Your task to perform on an android device: turn off notifications in google photos Image 0: 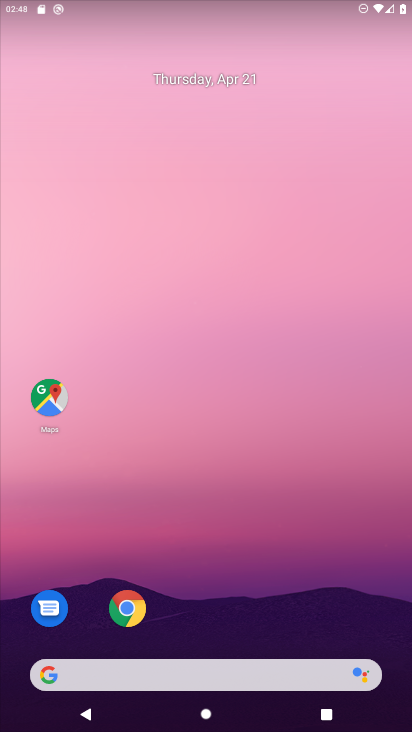
Step 0: click (210, 198)
Your task to perform on an android device: turn off notifications in google photos Image 1: 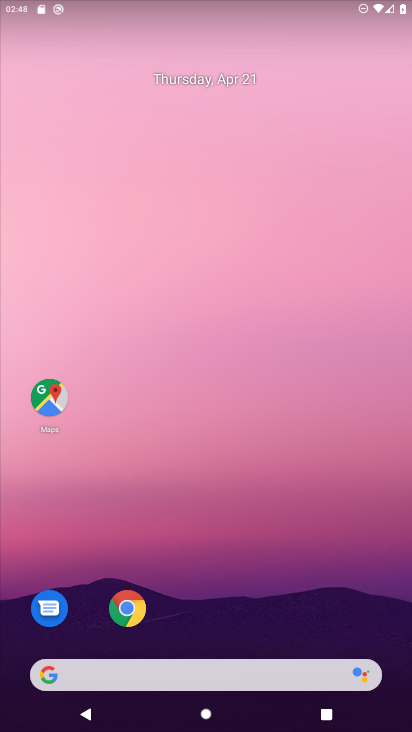
Step 1: drag from (281, 468) to (324, 137)
Your task to perform on an android device: turn off notifications in google photos Image 2: 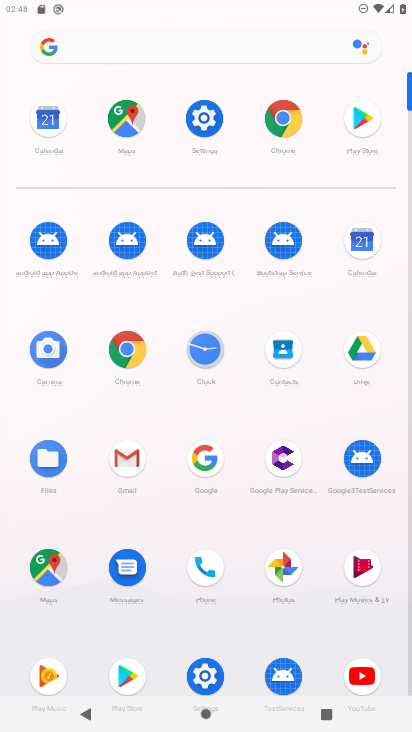
Step 2: click (283, 556)
Your task to perform on an android device: turn off notifications in google photos Image 3: 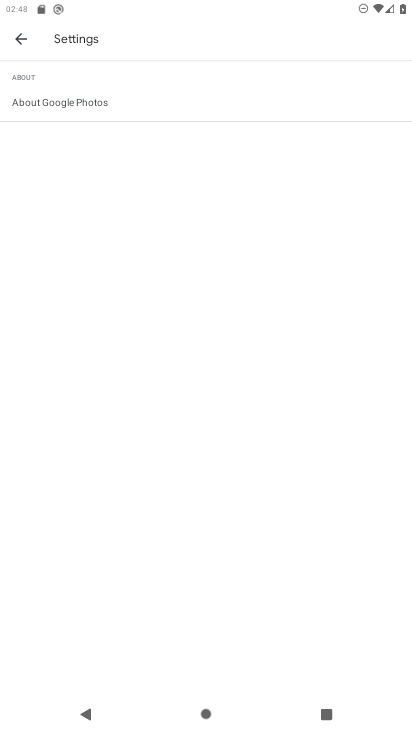
Step 3: click (23, 35)
Your task to perform on an android device: turn off notifications in google photos Image 4: 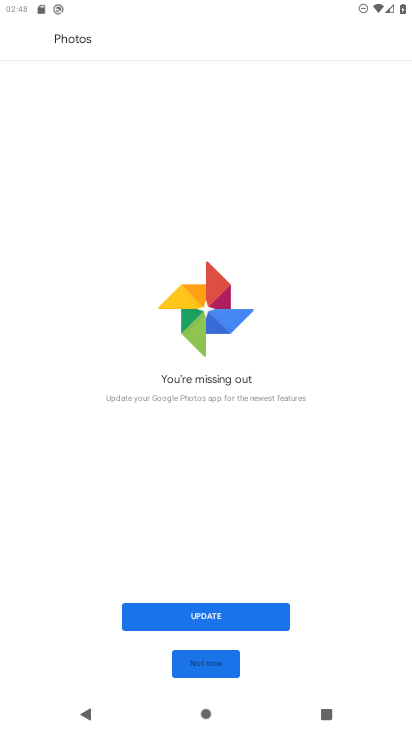
Step 4: click (194, 672)
Your task to perform on an android device: turn off notifications in google photos Image 5: 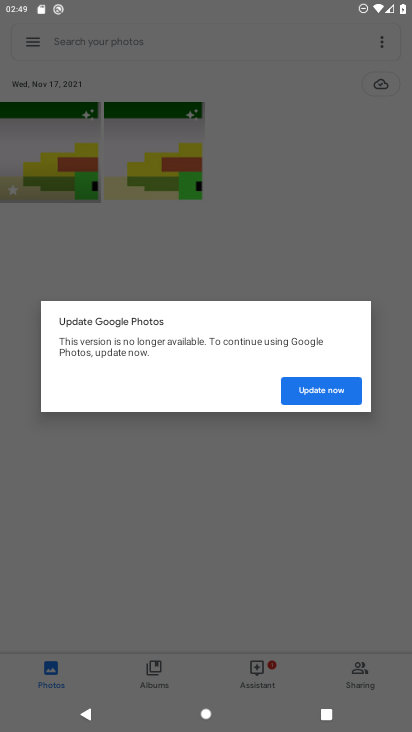
Step 5: click (303, 394)
Your task to perform on an android device: turn off notifications in google photos Image 6: 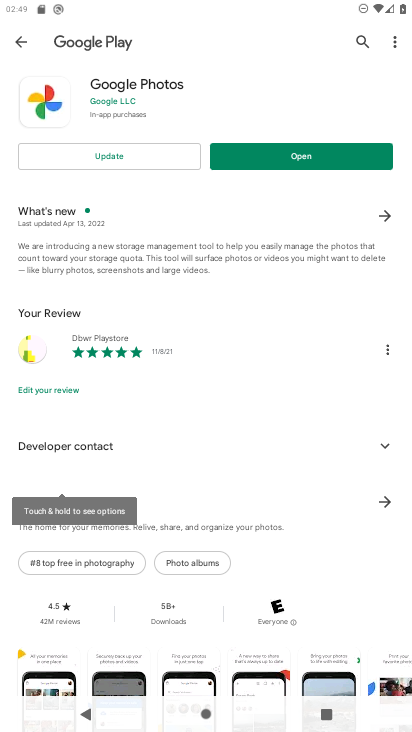
Step 6: press back button
Your task to perform on an android device: turn off notifications in google photos Image 7: 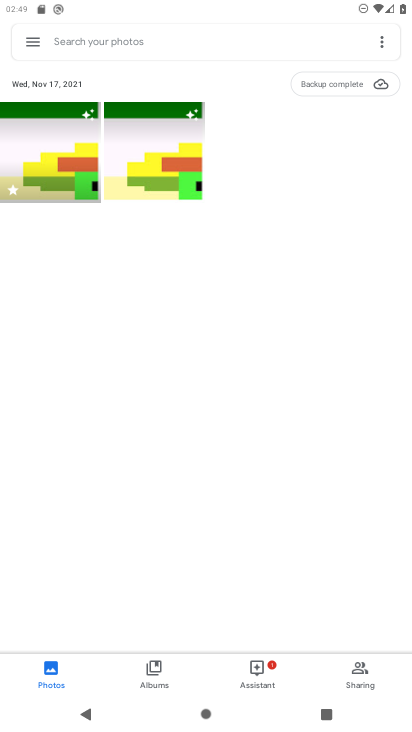
Step 7: click (23, 42)
Your task to perform on an android device: turn off notifications in google photos Image 8: 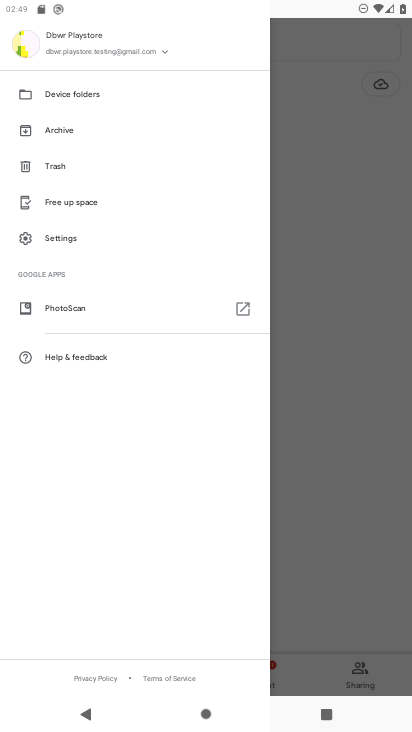
Step 8: click (72, 238)
Your task to perform on an android device: turn off notifications in google photos Image 9: 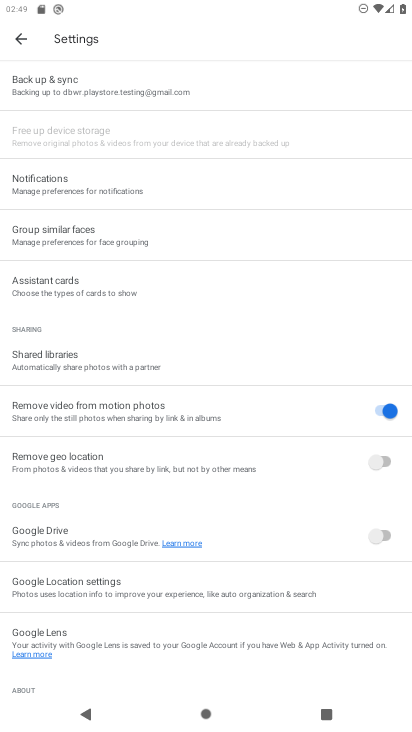
Step 9: click (97, 181)
Your task to perform on an android device: turn off notifications in google photos Image 10: 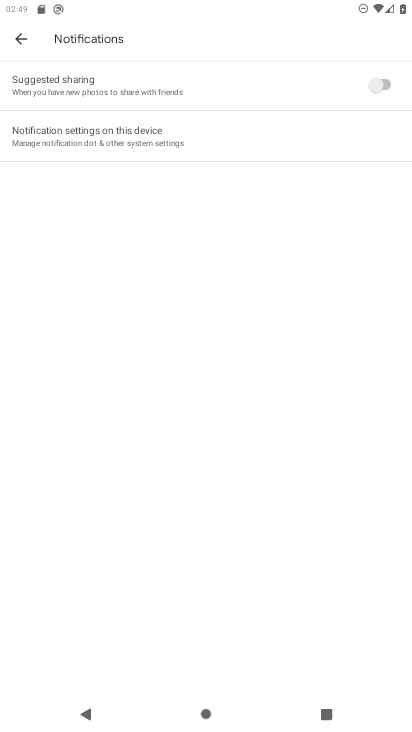
Step 10: click (212, 131)
Your task to perform on an android device: turn off notifications in google photos Image 11: 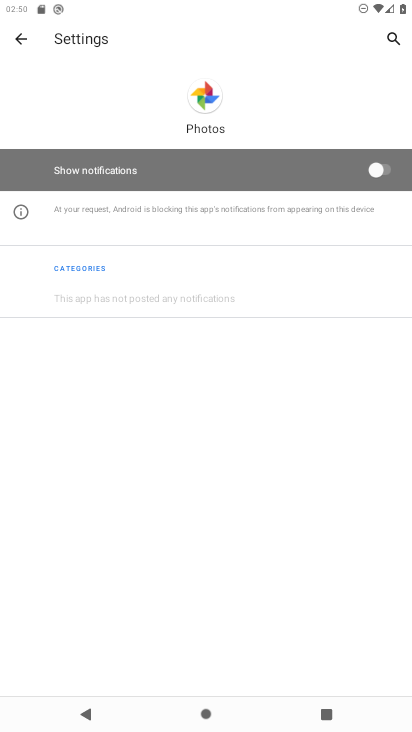
Step 11: task complete